Your task to perform on an android device: turn on sleep mode Image 0: 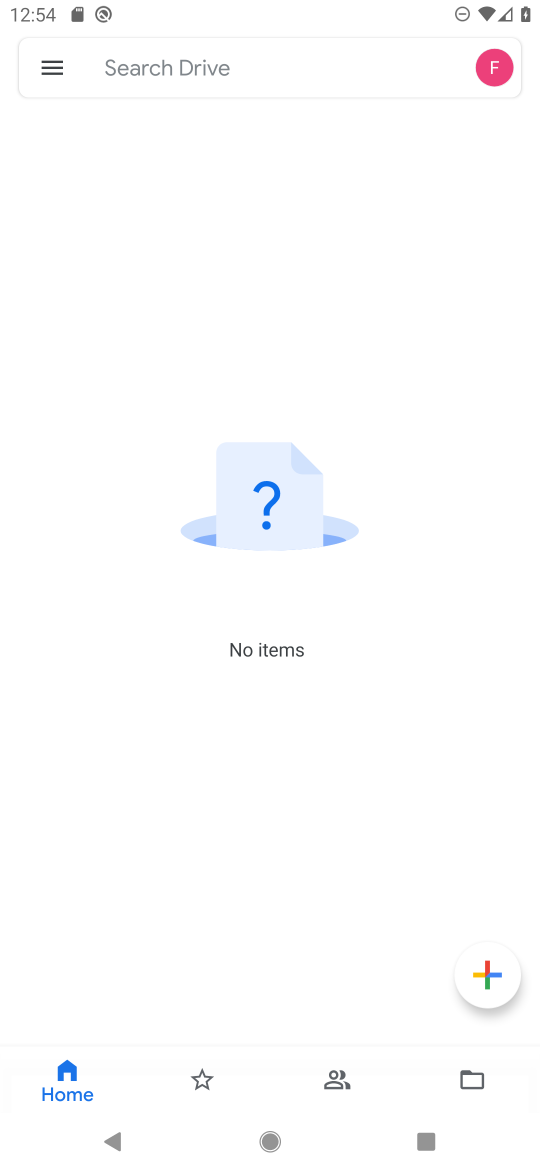
Step 0: press home button
Your task to perform on an android device: turn on sleep mode Image 1: 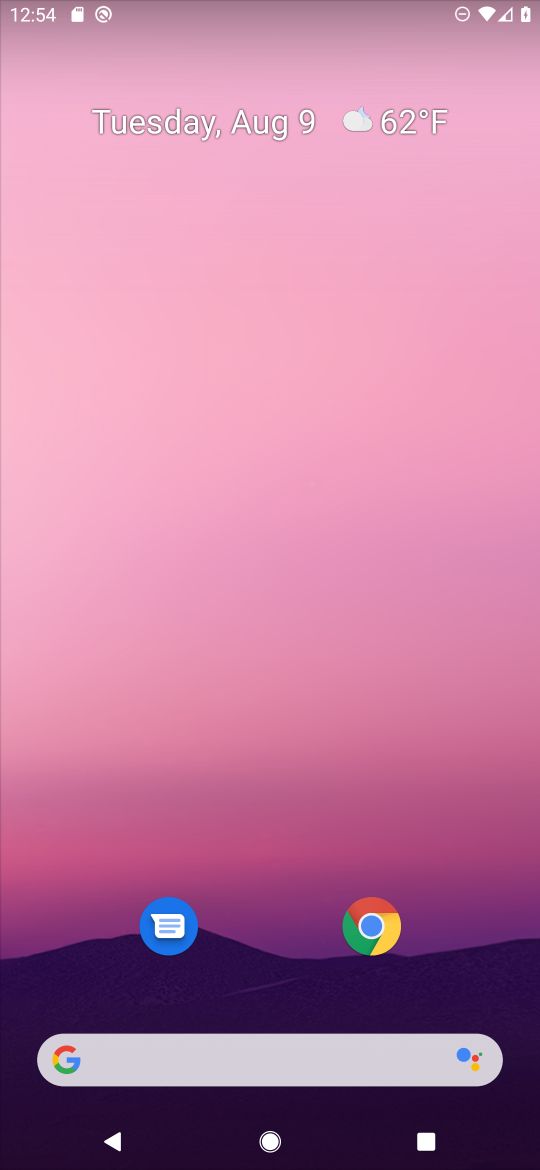
Step 1: drag from (4, 809) to (240, 116)
Your task to perform on an android device: turn on sleep mode Image 2: 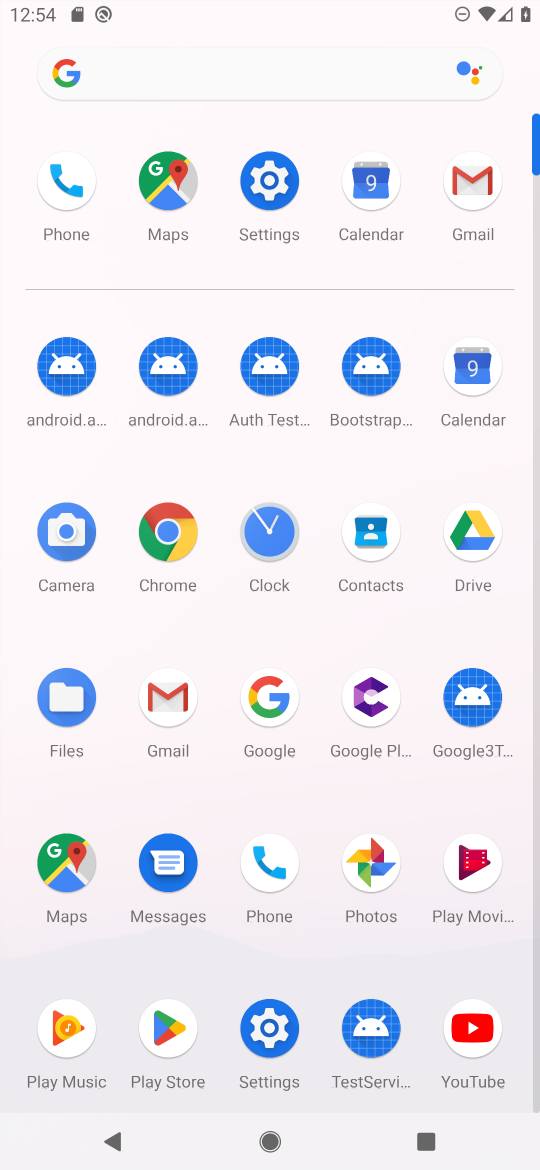
Step 2: click (249, 174)
Your task to perform on an android device: turn on sleep mode Image 3: 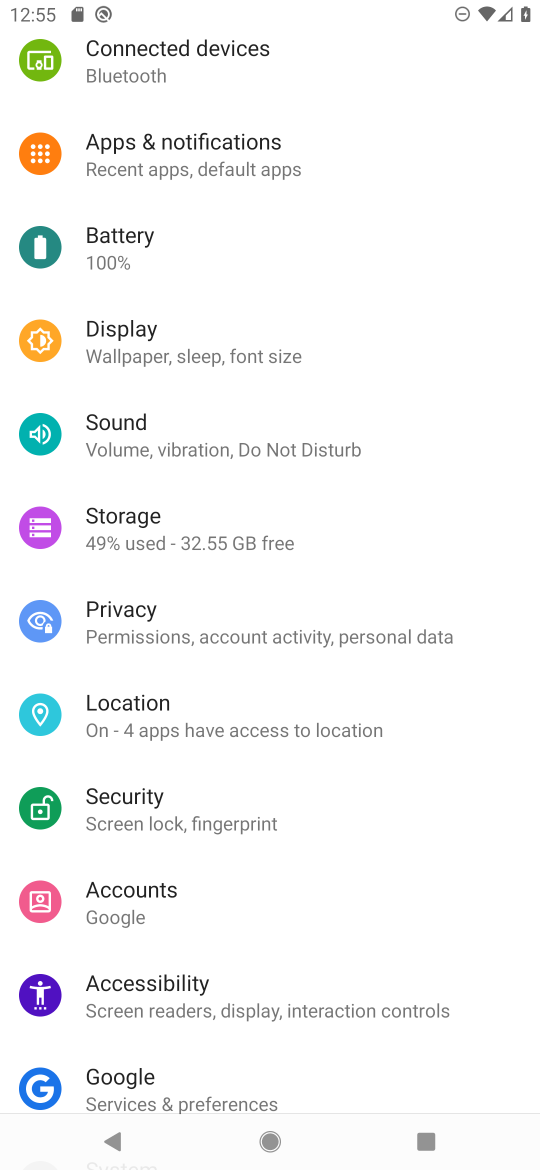
Step 3: task complete